Your task to perform on an android device: Go to display settings Image 0: 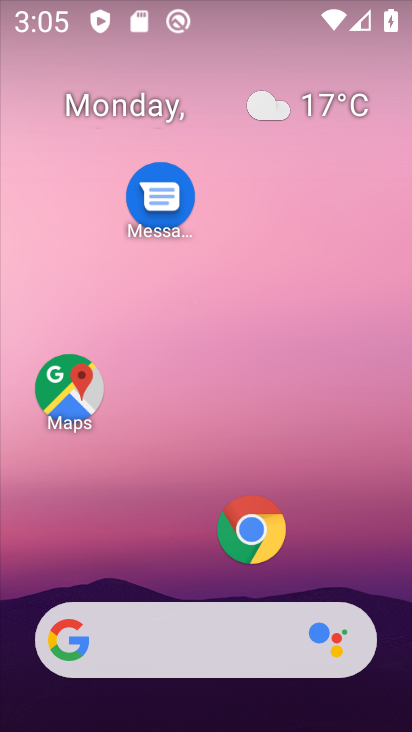
Step 0: press home button
Your task to perform on an android device: Go to display settings Image 1: 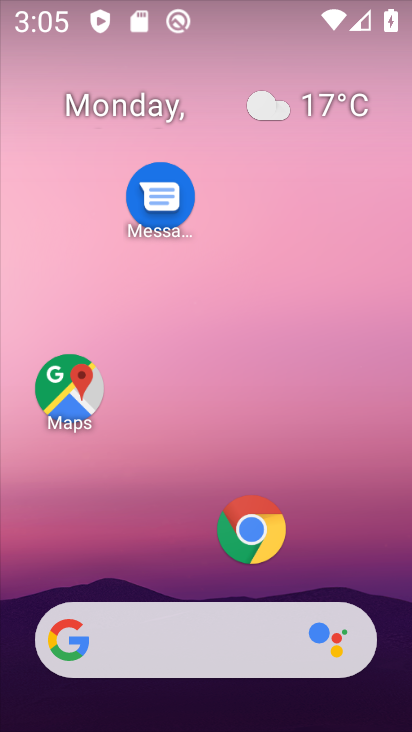
Step 1: drag from (212, 581) to (203, 58)
Your task to perform on an android device: Go to display settings Image 2: 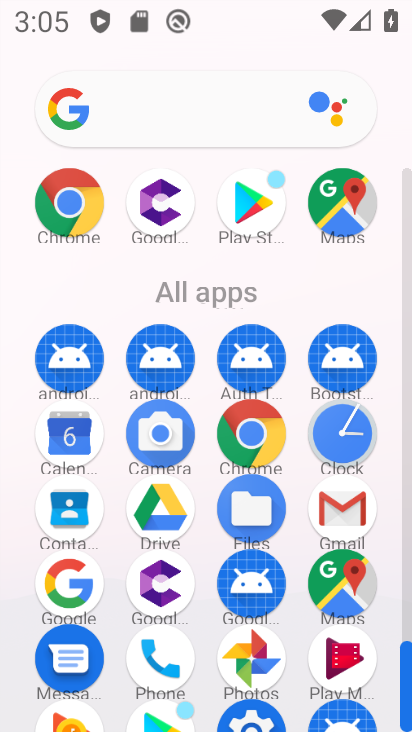
Step 2: drag from (197, 613) to (227, 145)
Your task to perform on an android device: Go to display settings Image 3: 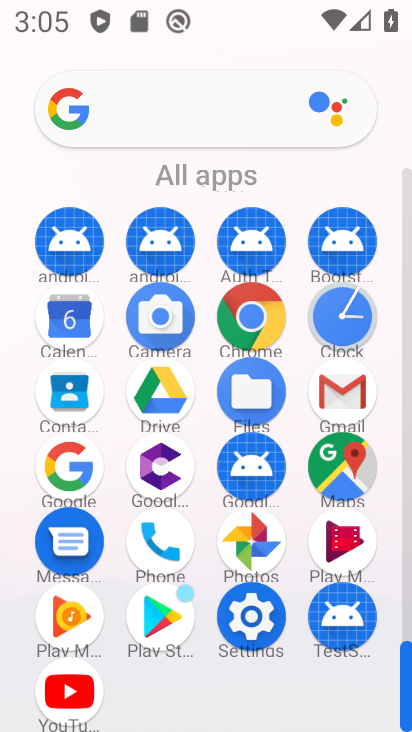
Step 3: click (246, 612)
Your task to perform on an android device: Go to display settings Image 4: 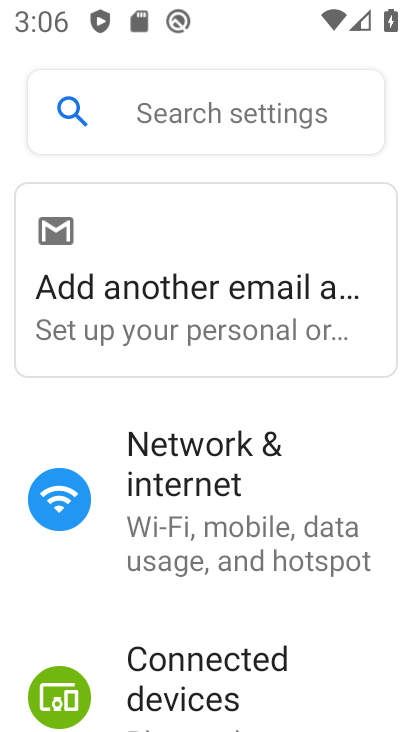
Step 4: drag from (289, 681) to (301, 72)
Your task to perform on an android device: Go to display settings Image 5: 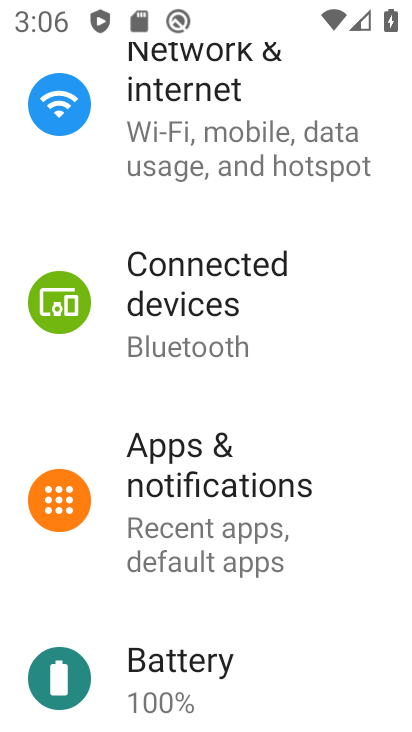
Step 5: drag from (264, 666) to (308, 148)
Your task to perform on an android device: Go to display settings Image 6: 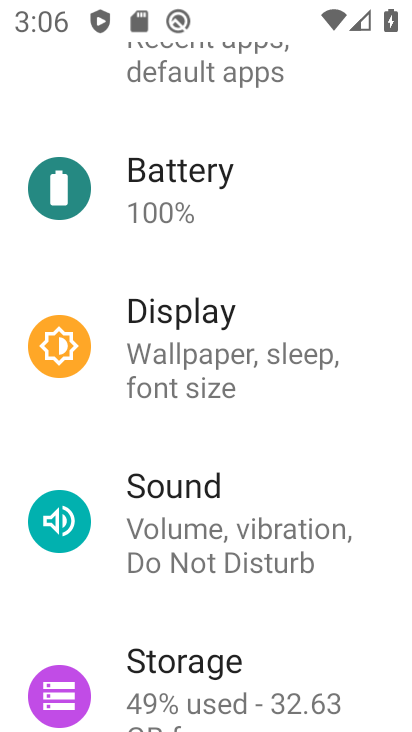
Step 6: click (223, 341)
Your task to perform on an android device: Go to display settings Image 7: 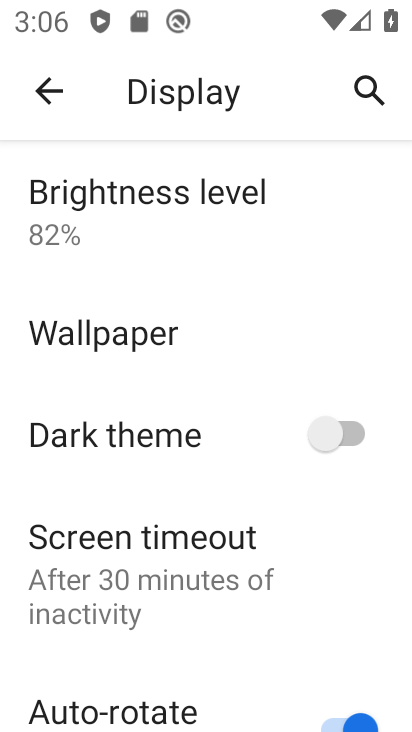
Step 7: drag from (200, 648) to (238, 266)
Your task to perform on an android device: Go to display settings Image 8: 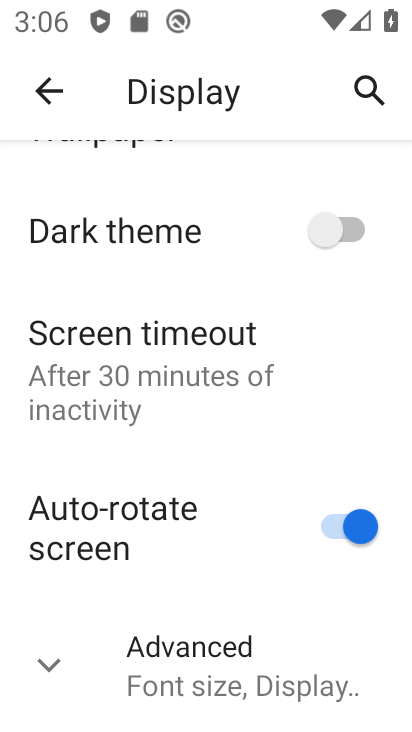
Step 8: click (41, 662)
Your task to perform on an android device: Go to display settings Image 9: 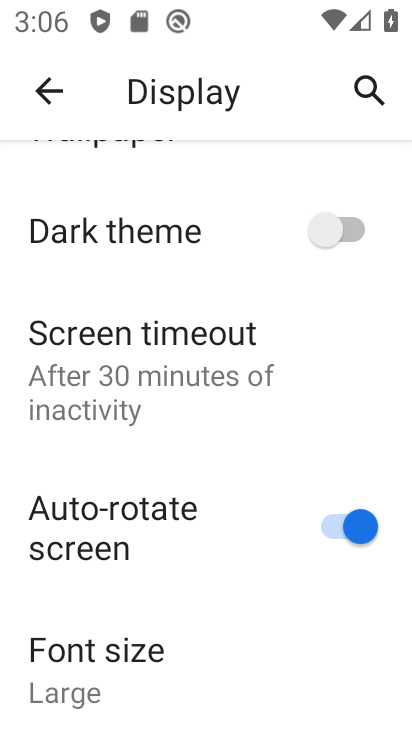
Step 9: task complete